Your task to perform on an android device: see sites visited before in the chrome app Image 0: 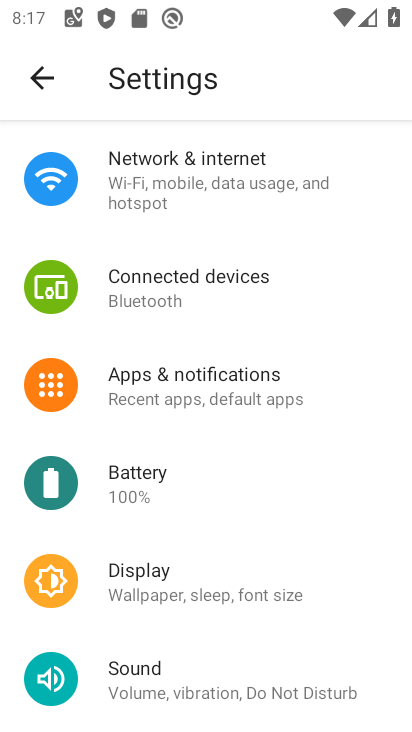
Step 0: press home button
Your task to perform on an android device: see sites visited before in the chrome app Image 1: 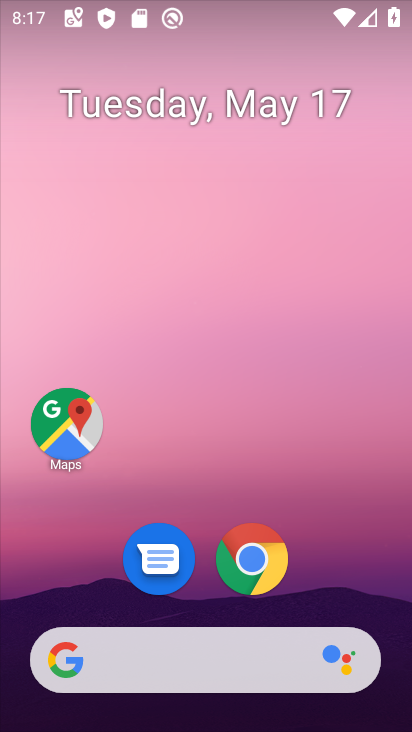
Step 1: click (263, 577)
Your task to perform on an android device: see sites visited before in the chrome app Image 2: 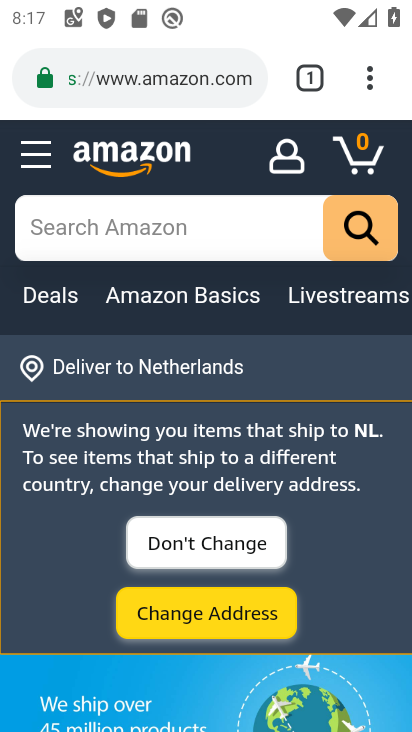
Step 2: click (364, 76)
Your task to perform on an android device: see sites visited before in the chrome app Image 3: 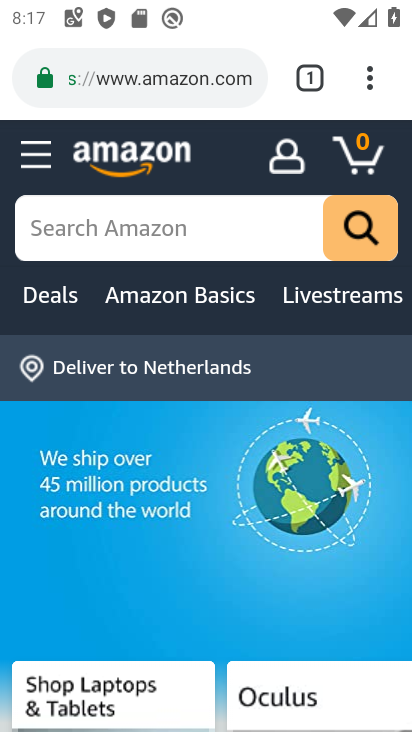
Step 3: click (360, 74)
Your task to perform on an android device: see sites visited before in the chrome app Image 4: 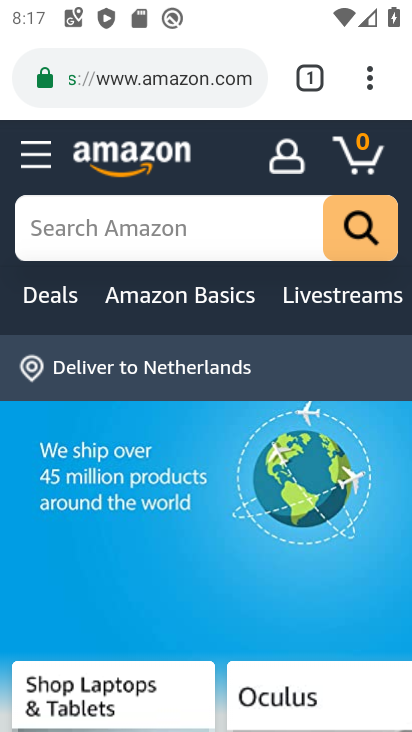
Step 4: click (360, 74)
Your task to perform on an android device: see sites visited before in the chrome app Image 5: 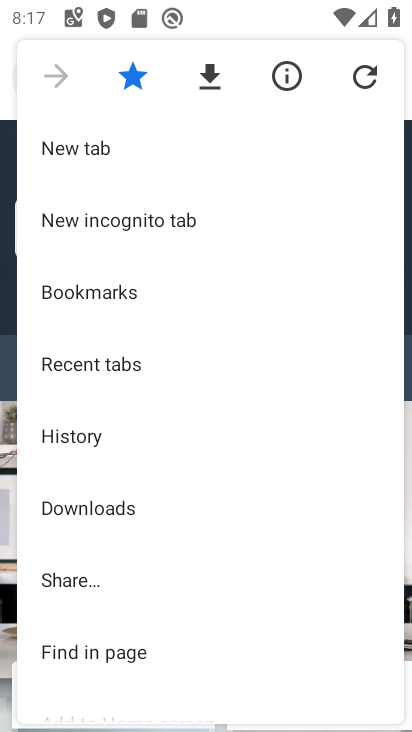
Step 5: click (99, 362)
Your task to perform on an android device: see sites visited before in the chrome app Image 6: 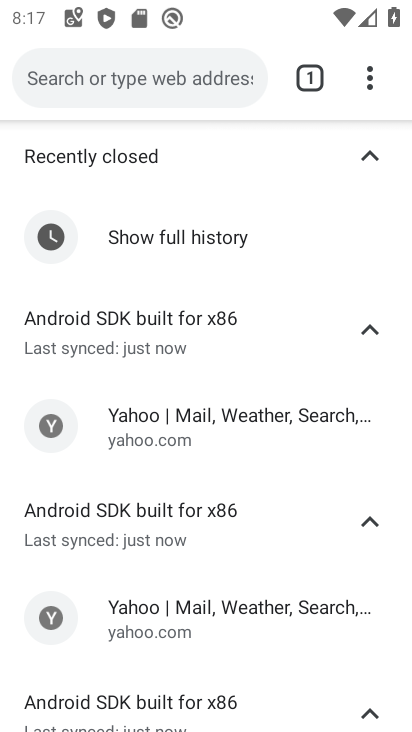
Step 6: task complete